Your task to perform on an android device: change the clock display to show seconds Image 0: 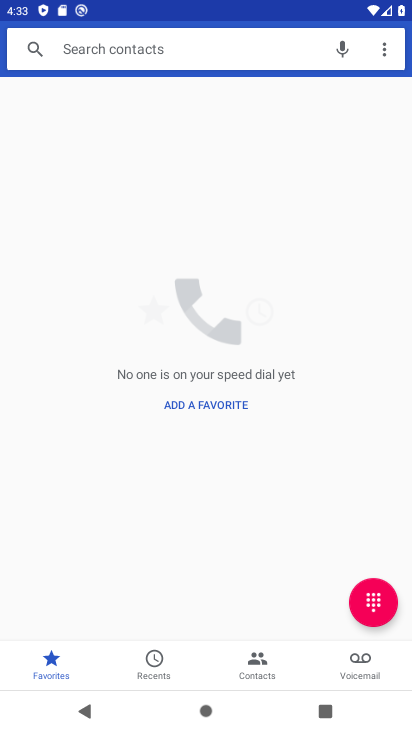
Step 0: press home button
Your task to perform on an android device: change the clock display to show seconds Image 1: 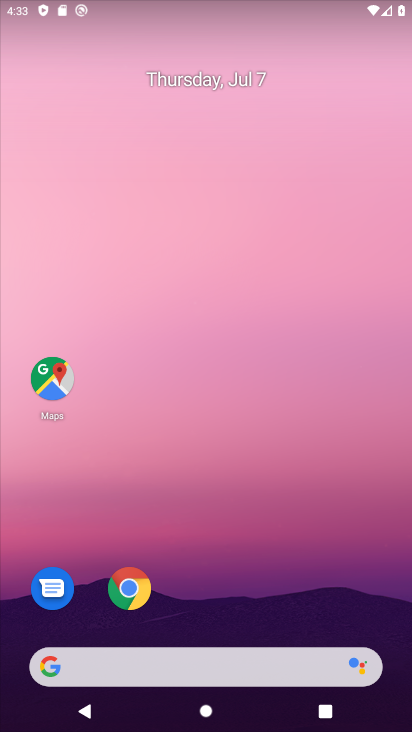
Step 1: drag from (233, 611) to (308, 197)
Your task to perform on an android device: change the clock display to show seconds Image 2: 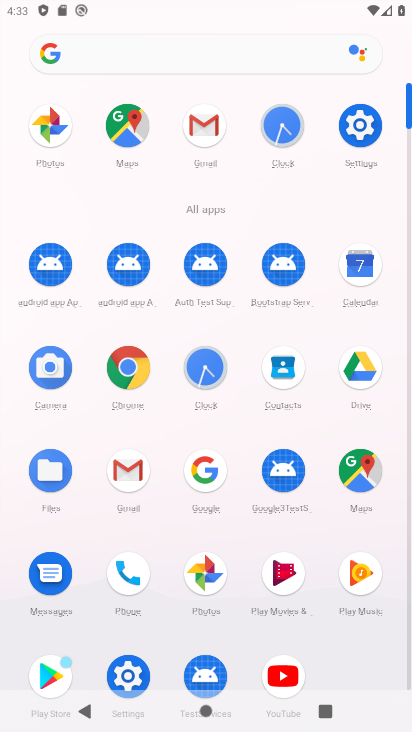
Step 2: click (212, 383)
Your task to perform on an android device: change the clock display to show seconds Image 3: 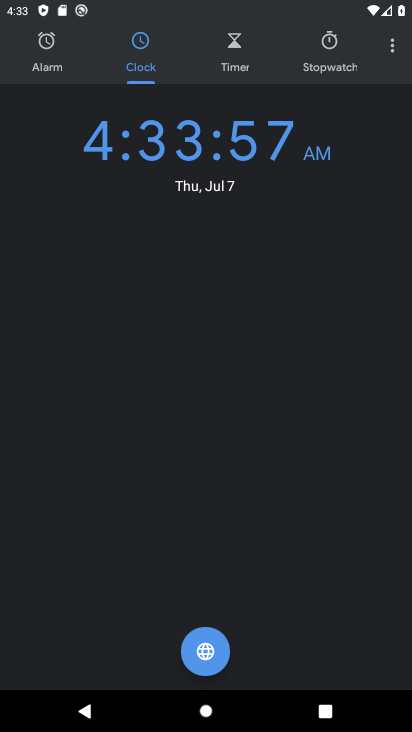
Step 3: task complete